Your task to perform on an android device: Go to Yahoo.com Image 0: 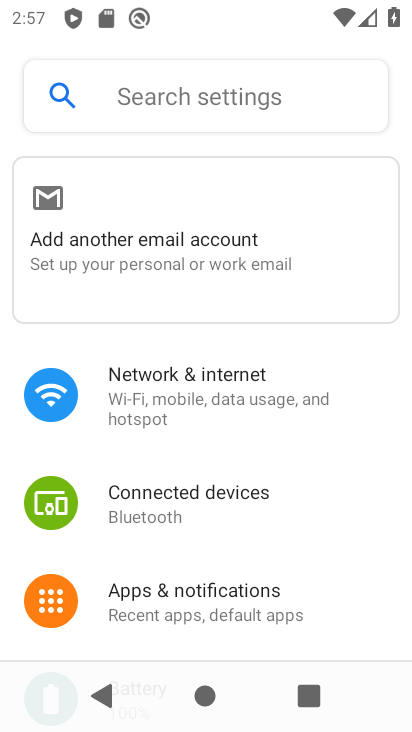
Step 0: press home button
Your task to perform on an android device: Go to Yahoo.com Image 1: 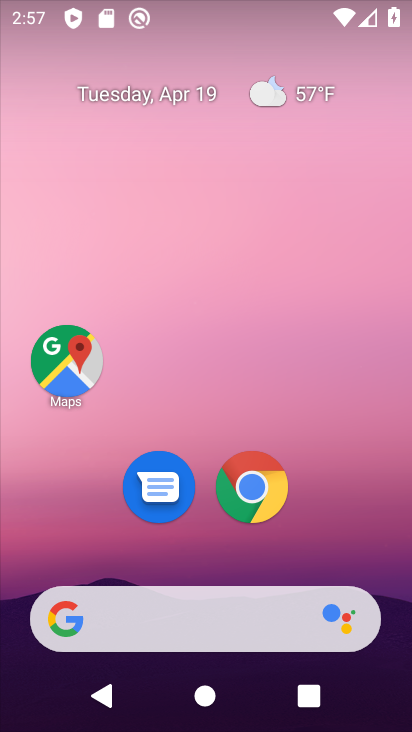
Step 1: click (268, 505)
Your task to perform on an android device: Go to Yahoo.com Image 2: 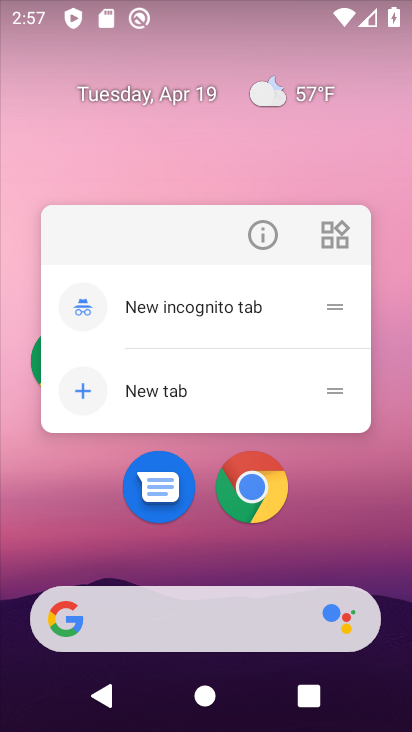
Step 2: click (268, 508)
Your task to perform on an android device: Go to Yahoo.com Image 3: 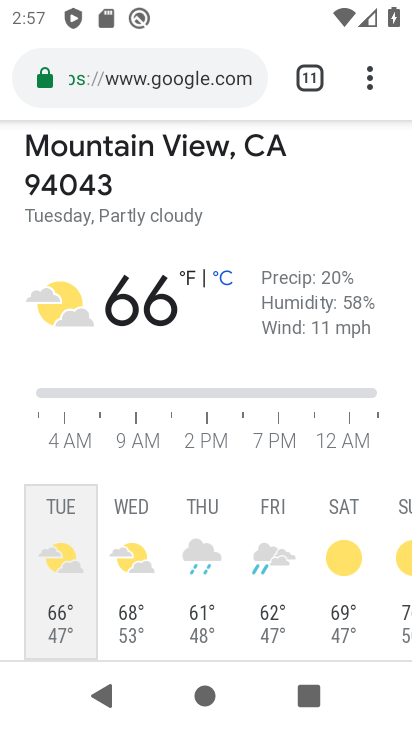
Step 3: click (310, 89)
Your task to perform on an android device: Go to Yahoo.com Image 4: 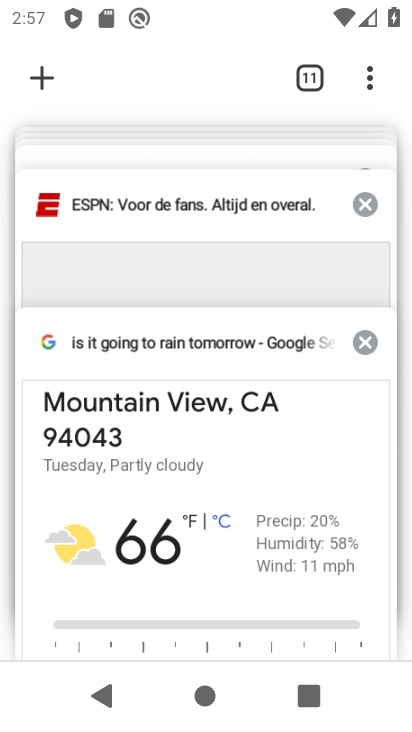
Step 4: click (41, 86)
Your task to perform on an android device: Go to Yahoo.com Image 5: 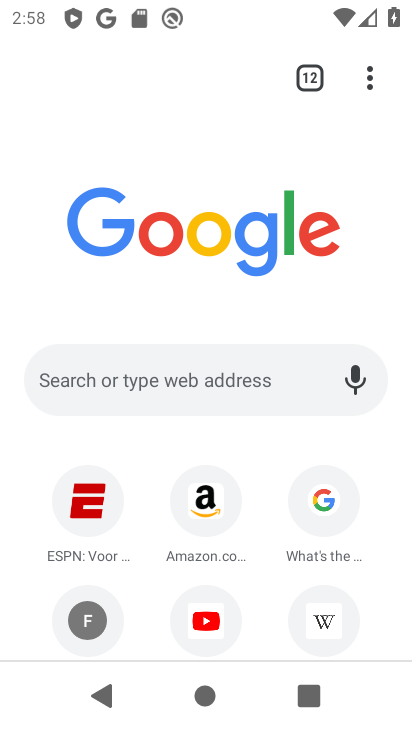
Step 5: click (187, 364)
Your task to perform on an android device: Go to Yahoo.com Image 6: 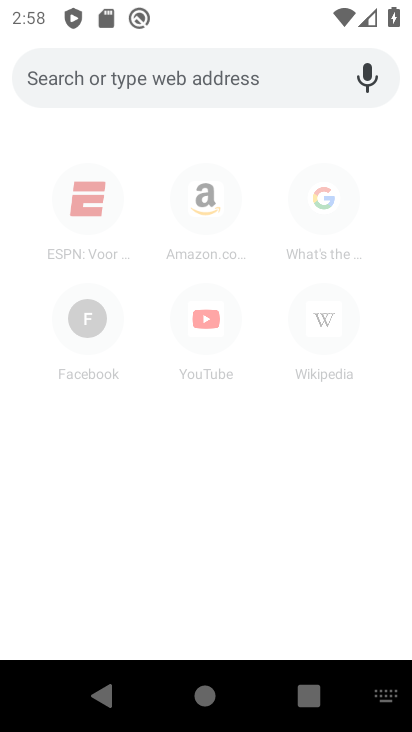
Step 6: type "yahoo.com"
Your task to perform on an android device: Go to Yahoo.com Image 7: 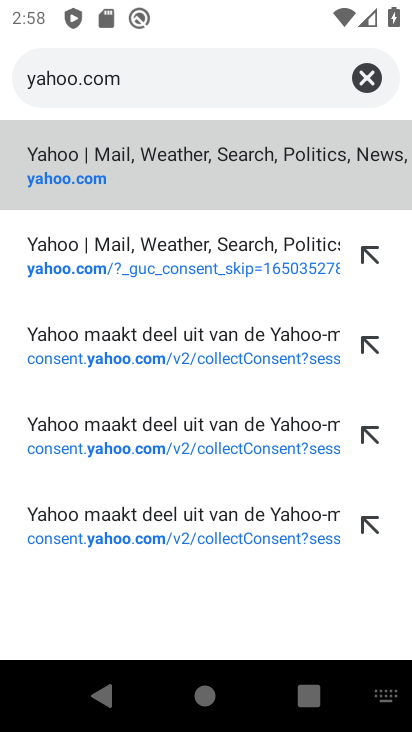
Step 7: click (85, 174)
Your task to perform on an android device: Go to Yahoo.com Image 8: 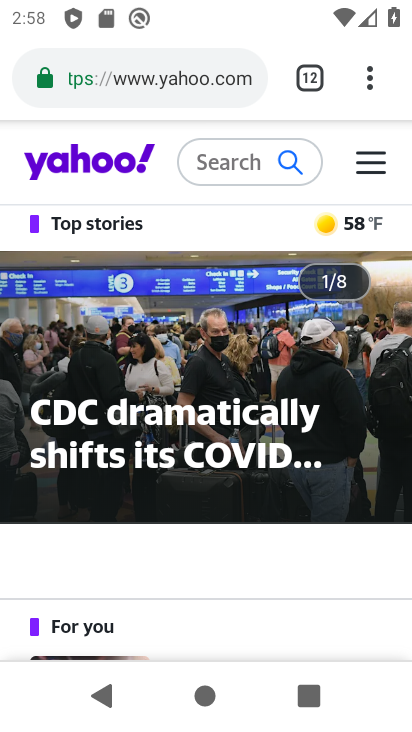
Step 8: task complete